Your task to perform on an android device: turn off priority inbox in the gmail app Image 0: 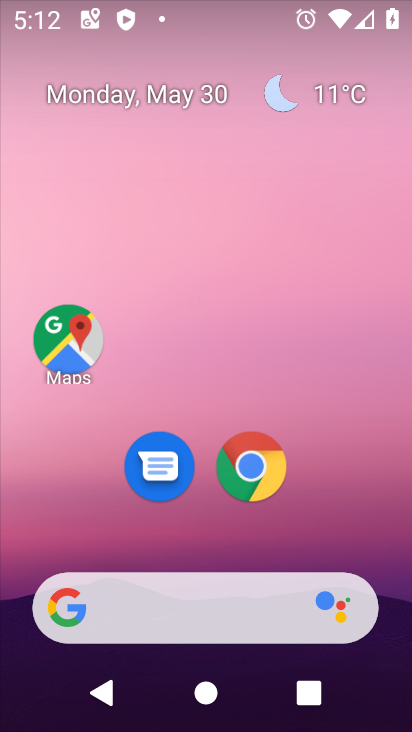
Step 0: drag from (330, 453) to (320, 67)
Your task to perform on an android device: turn off priority inbox in the gmail app Image 1: 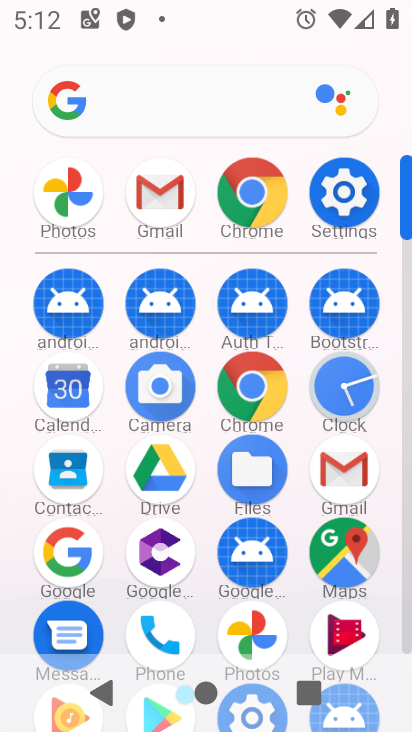
Step 1: click (154, 192)
Your task to perform on an android device: turn off priority inbox in the gmail app Image 2: 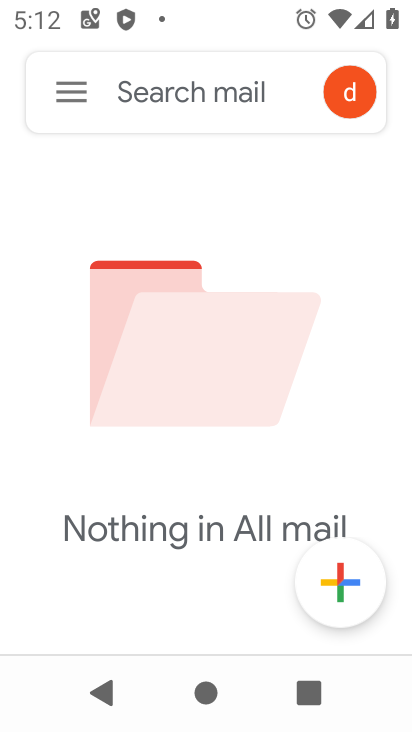
Step 2: click (77, 101)
Your task to perform on an android device: turn off priority inbox in the gmail app Image 3: 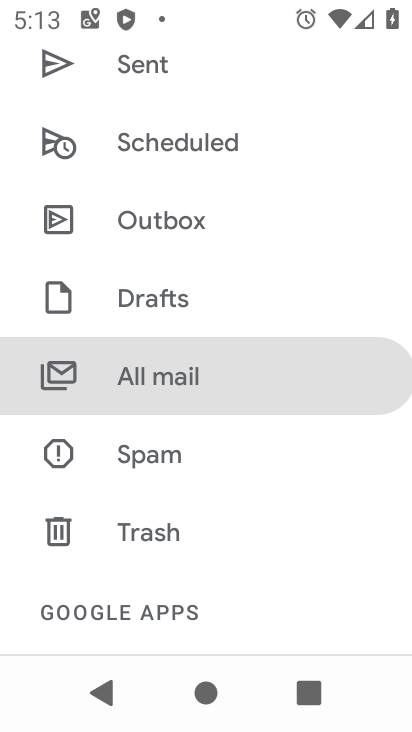
Step 3: drag from (191, 592) to (243, 232)
Your task to perform on an android device: turn off priority inbox in the gmail app Image 4: 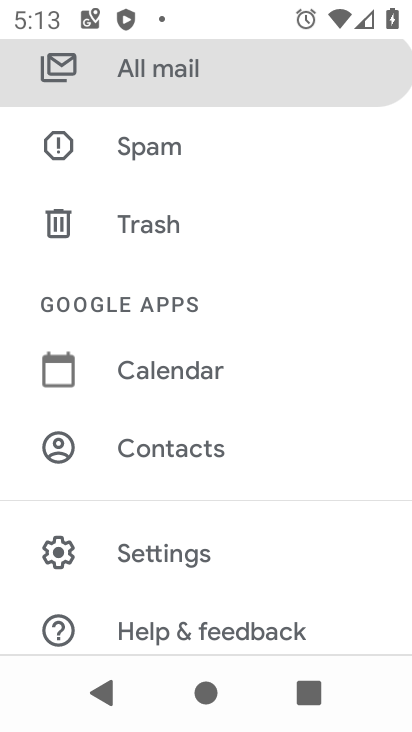
Step 4: click (243, 232)
Your task to perform on an android device: turn off priority inbox in the gmail app Image 5: 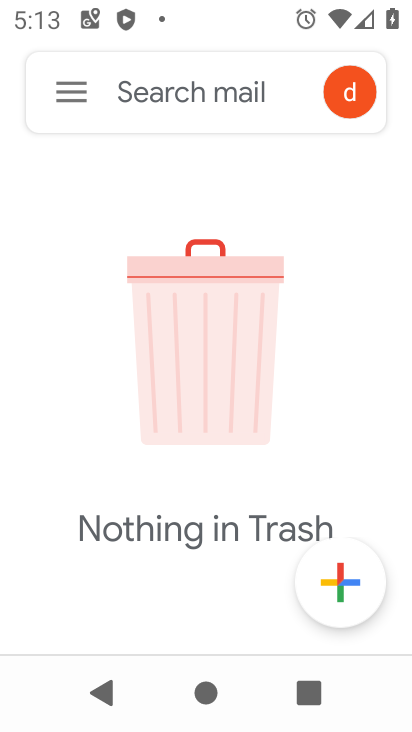
Step 5: click (77, 94)
Your task to perform on an android device: turn off priority inbox in the gmail app Image 6: 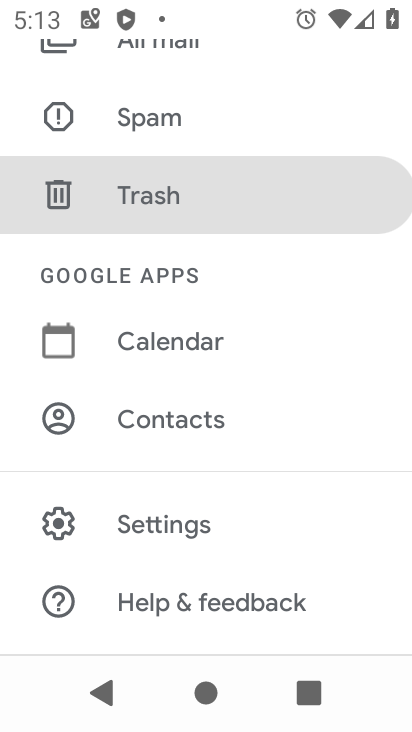
Step 6: drag from (167, 546) to (257, 176)
Your task to perform on an android device: turn off priority inbox in the gmail app Image 7: 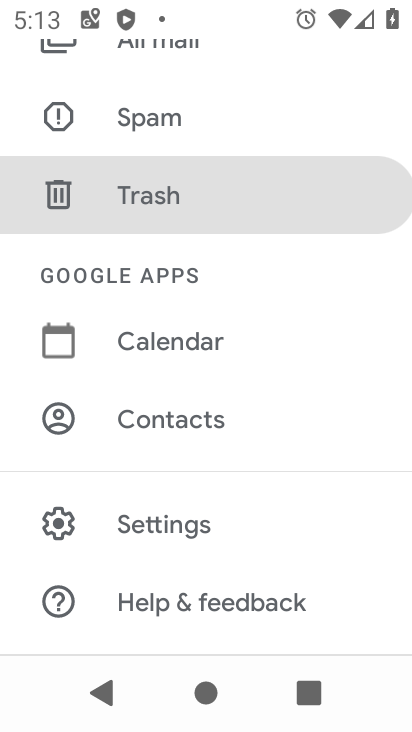
Step 7: click (171, 536)
Your task to perform on an android device: turn off priority inbox in the gmail app Image 8: 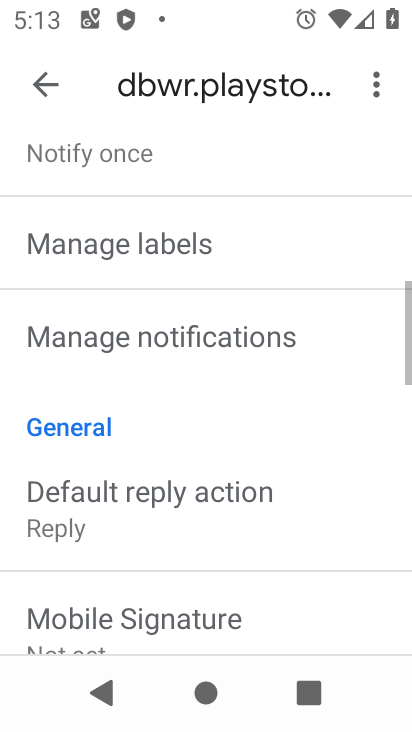
Step 8: drag from (289, 477) to (347, 108)
Your task to perform on an android device: turn off priority inbox in the gmail app Image 9: 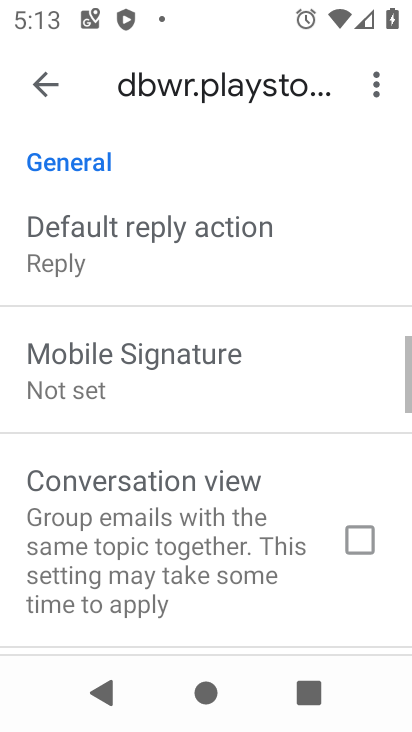
Step 9: click (359, 9)
Your task to perform on an android device: turn off priority inbox in the gmail app Image 10: 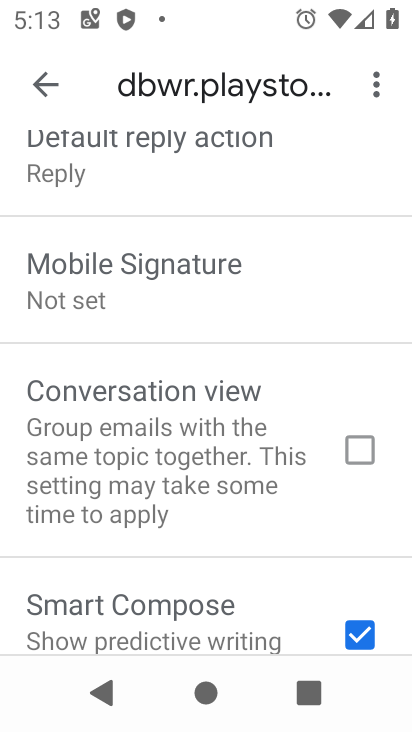
Step 10: drag from (153, 451) to (232, 718)
Your task to perform on an android device: turn off priority inbox in the gmail app Image 11: 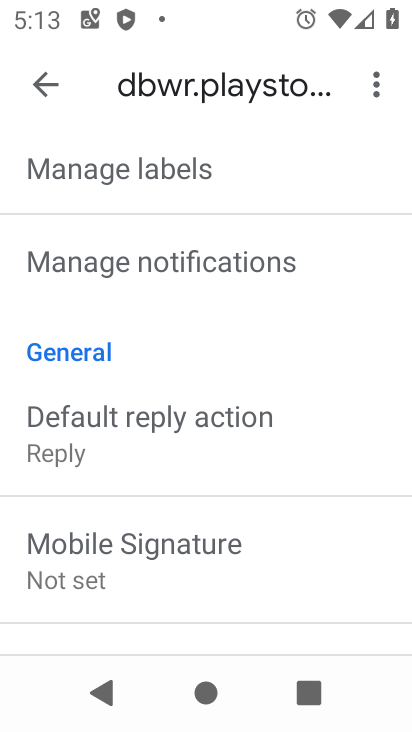
Step 11: drag from (217, 267) to (274, 664)
Your task to perform on an android device: turn off priority inbox in the gmail app Image 12: 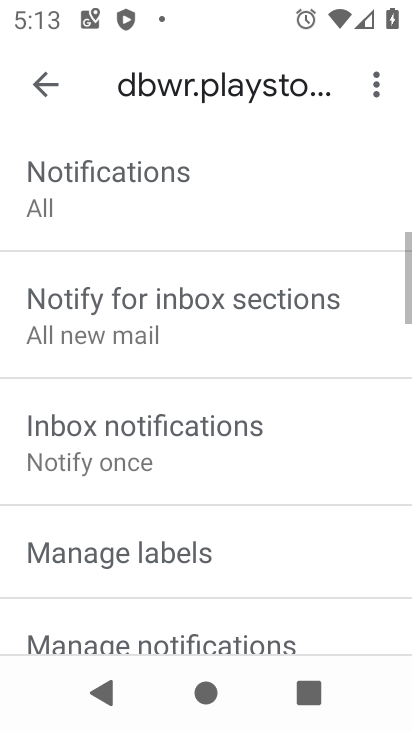
Step 12: drag from (196, 235) to (203, 592)
Your task to perform on an android device: turn off priority inbox in the gmail app Image 13: 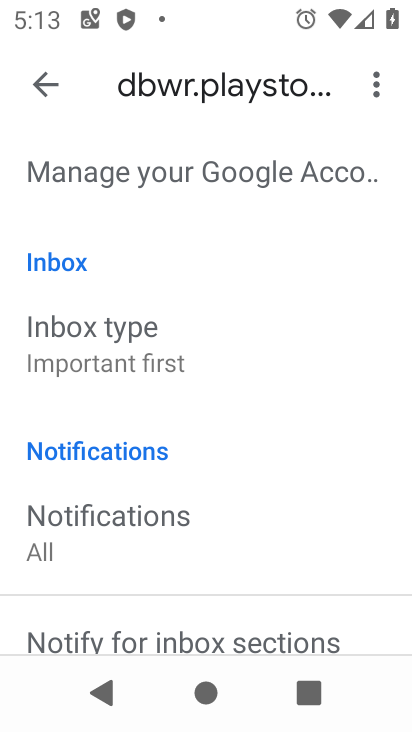
Step 13: drag from (233, 251) to (285, 630)
Your task to perform on an android device: turn off priority inbox in the gmail app Image 14: 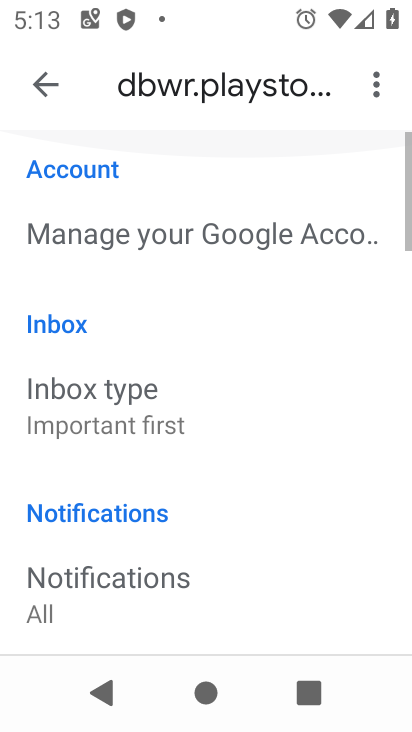
Step 14: drag from (287, 567) to (270, 209)
Your task to perform on an android device: turn off priority inbox in the gmail app Image 15: 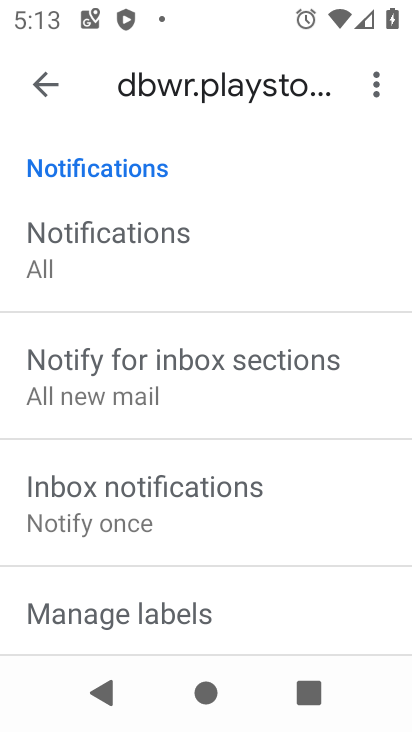
Step 15: drag from (245, 559) to (289, 218)
Your task to perform on an android device: turn off priority inbox in the gmail app Image 16: 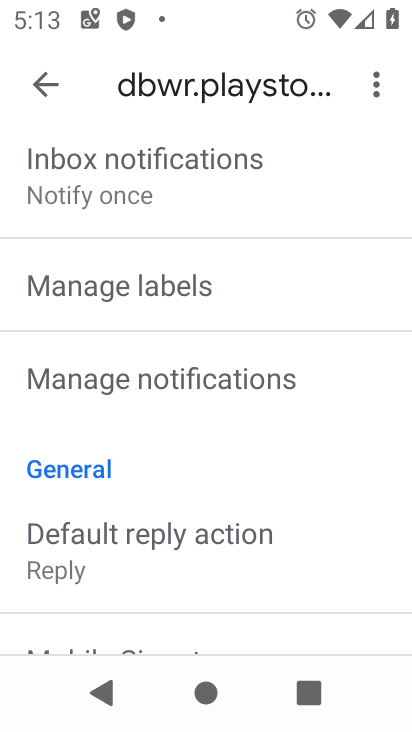
Step 16: drag from (277, 510) to (300, 180)
Your task to perform on an android device: turn off priority inbox in the gmail app Image 17: 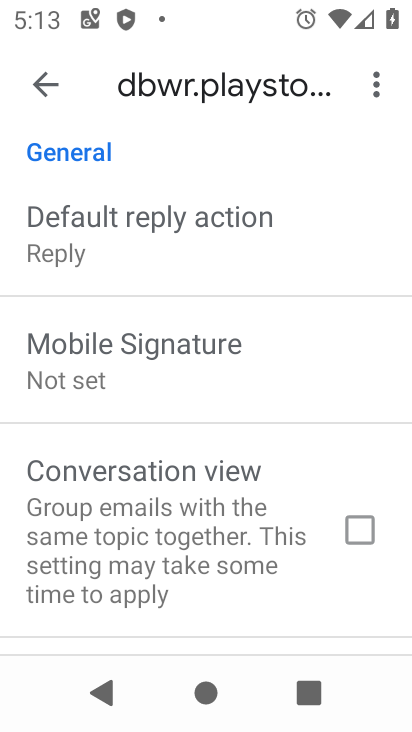
Step 17: drag from (199, 227) to (227, 616)
Your task to perform on an android device: turn off priority inbox in the gmail app Image 18: 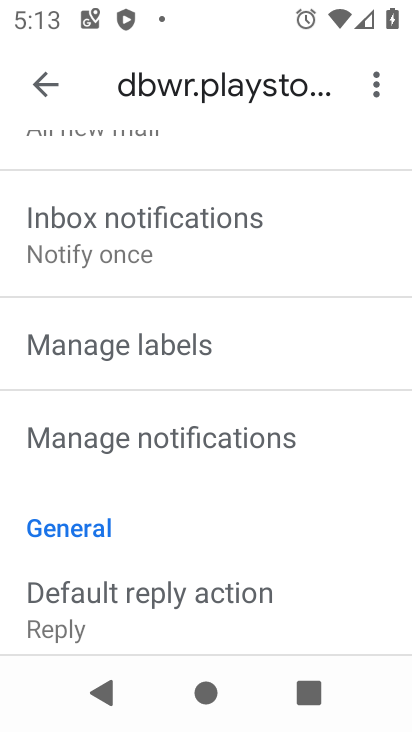
Step 18: drag from (244, 336) to (288, 620)
Your task to perform on an android device: turn off priority inbox in the gmail app Image 19: 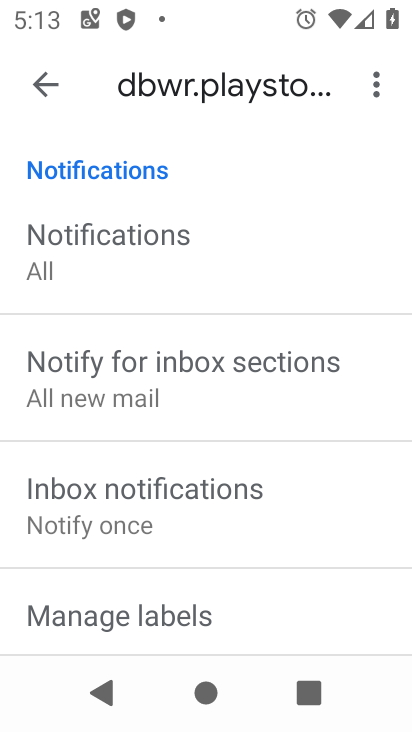
Step 19: drag from (203, 258) to (273, 722)
Your task to perform on an android device: turn off priority inbox in the gmail app Image 20: 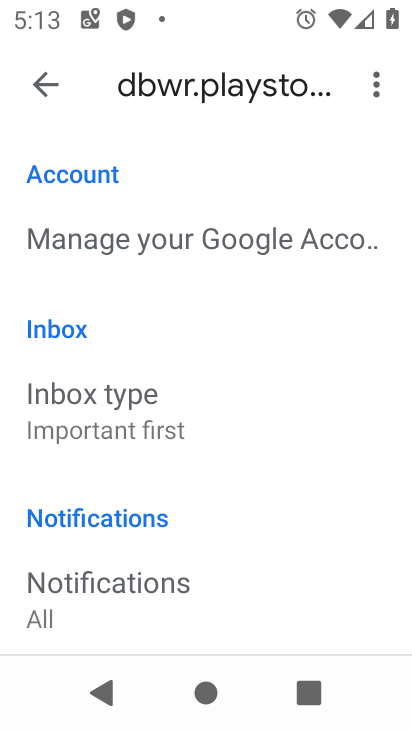
Step 20: drag from (197, 284) to (235, 665)
Your task to perform on an android device: turn off priority inbox in the gmail app Image 21: 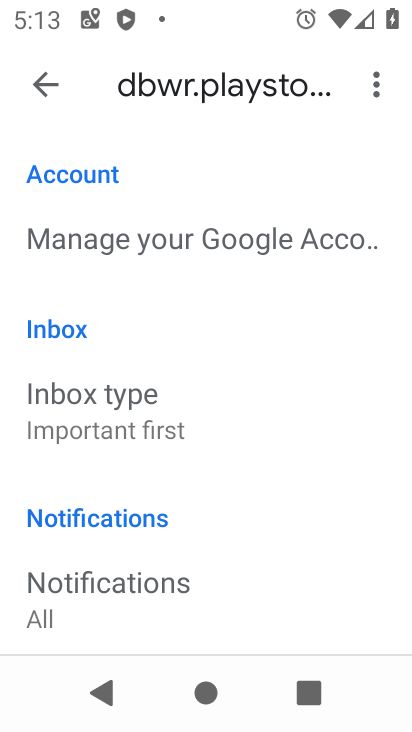
Step 21: click (125, 419)
Your task to perform on an android device: turn off priority inbox in the gmail app Image 22: 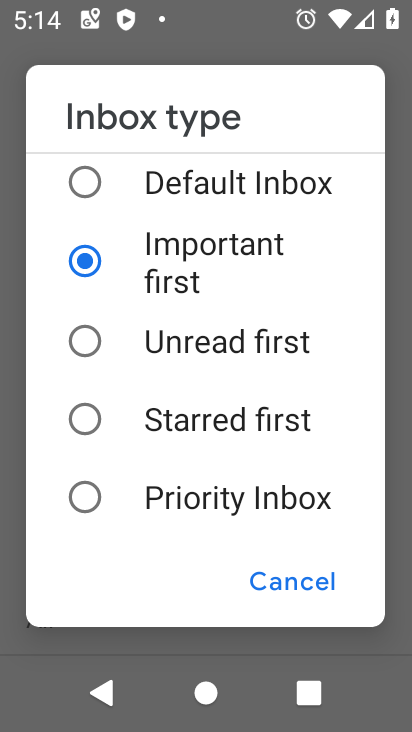
Step 22: task complete